Your task to perform on an android device: create a new album in the google photos Image 0: 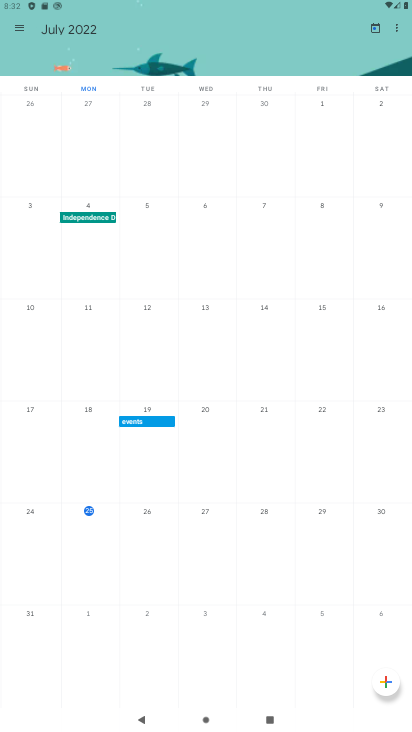
Step 0: press home button
Your task to perform on an android device: create a new album in the google photos Image 1: 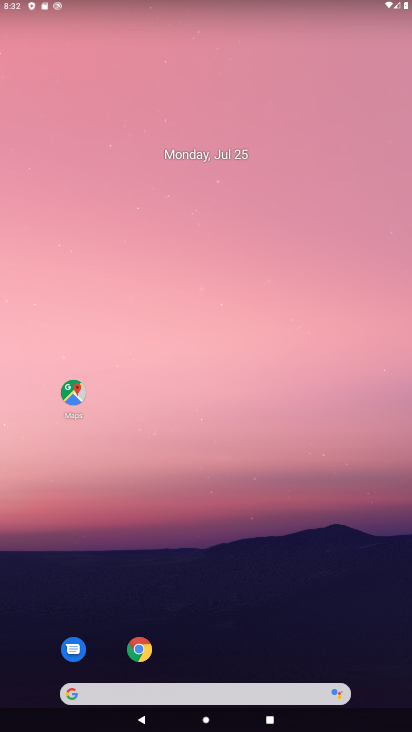
Step 1: drag from (220, 648) to (288, 238)
Your task to perform on an android device: create a new album in the google photos Image 2: 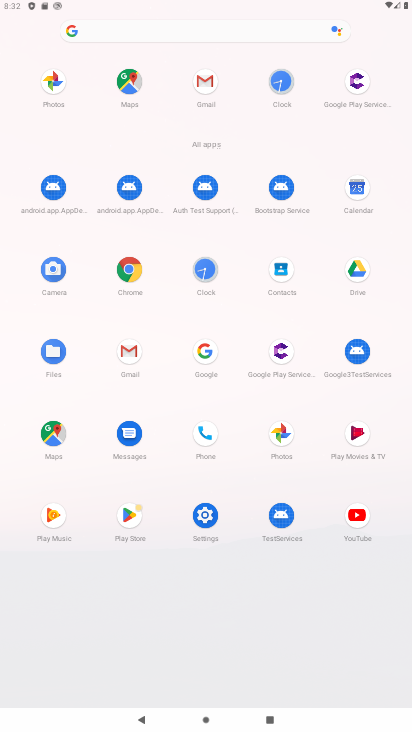
Step 2: click (274, 422)
Your task to perform on an android device: create a new album in the google photos Image 3: 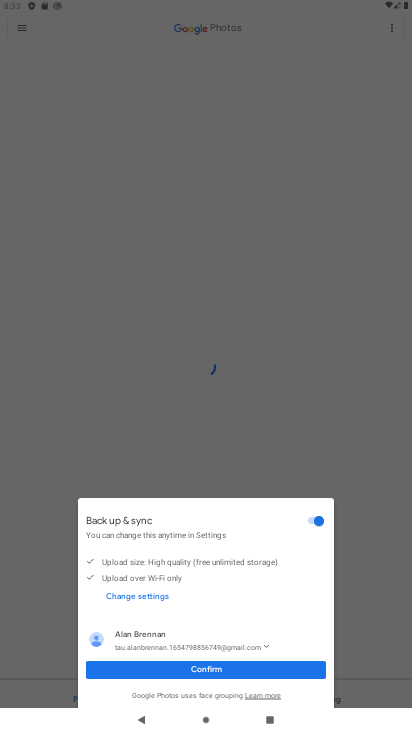
Step 3: click (209, 660)
Your task to perform on an android device: create a new album in the google photos Image 4: 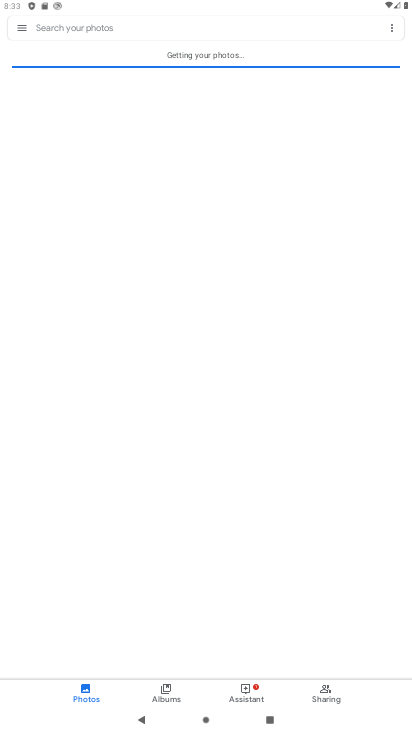
Step 4: click (391, 32)
Your task to perform on an android device: create a new album in the google photos Image 5: 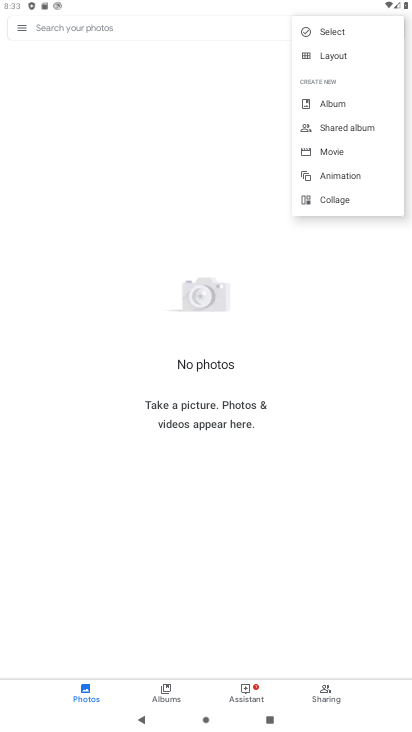
Step 5: click (329, 105)
Your task to perform on an android device: create a new album in the google photos Image 6: 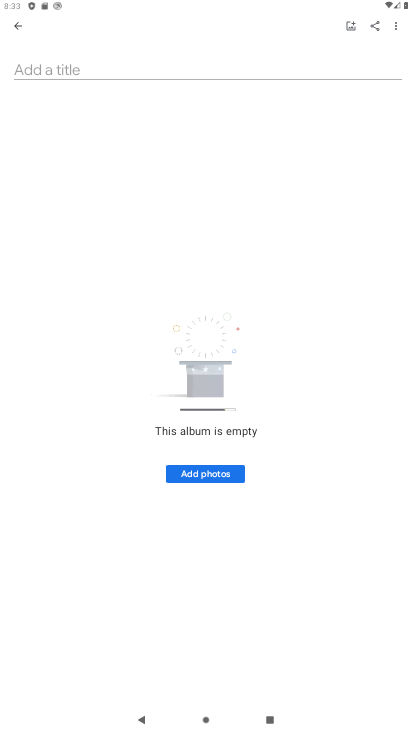
Step 6: click (95, 69)
Your task to perform on an android device: create a new album in the google photos Image 7: 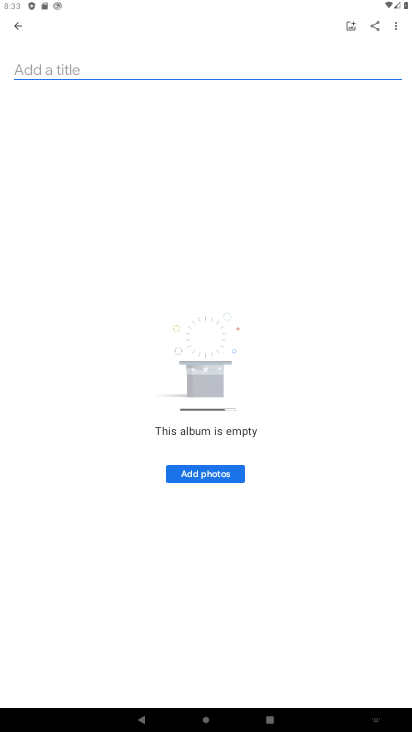
Step 7: type "gergf"
Your task to perform on an android device: create a new album in the google photos Image 8: 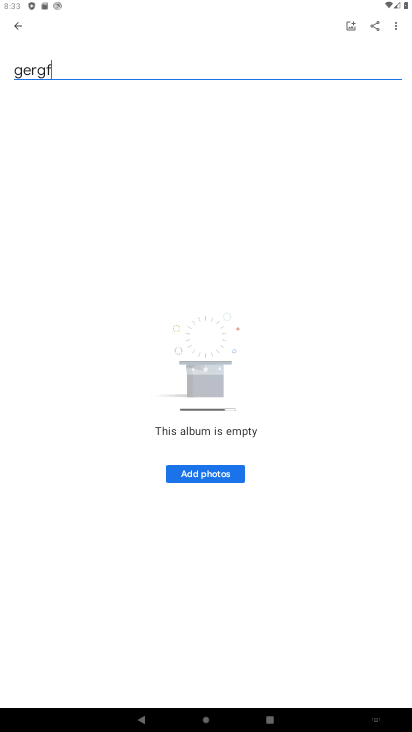
Step 8: click (201, 478)
Your task to perform on an android device: create a new album in the google photos Image 9: 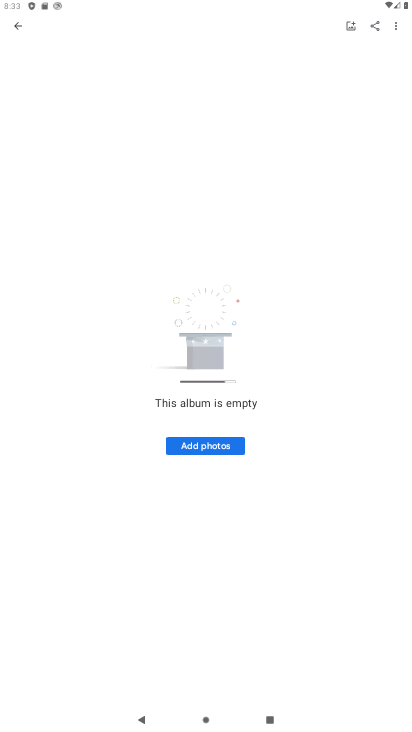
Step 9: click (203, 448)
Your task to perform on an android device: create a new album in the google photos Image 10: 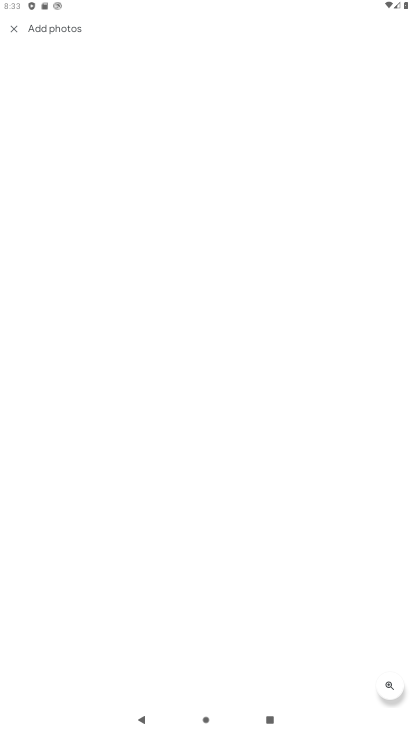
Step 10: click (15, 26)
Your task to perform on an android device: create a new album in the google photos Image 11: 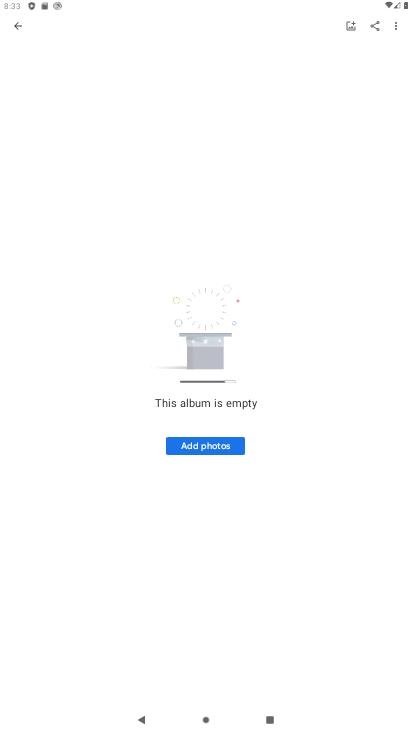
Step 11: click (24, 25)
Your task to perform on an android device: create a new album in the google photos Image 12: 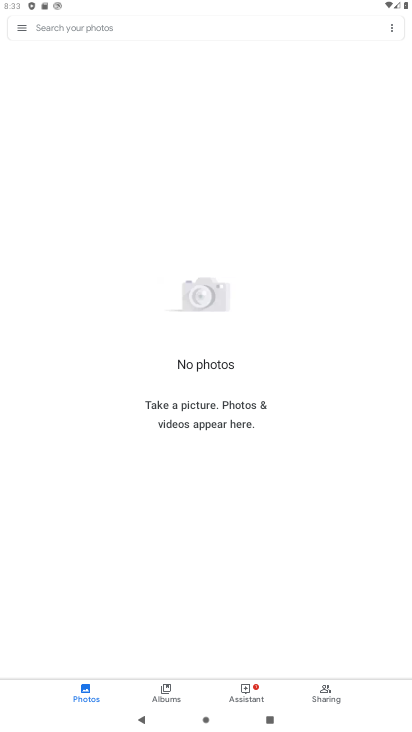
Step 12: task complete